Your task to perform on an android device: Go to display settings Image 0: 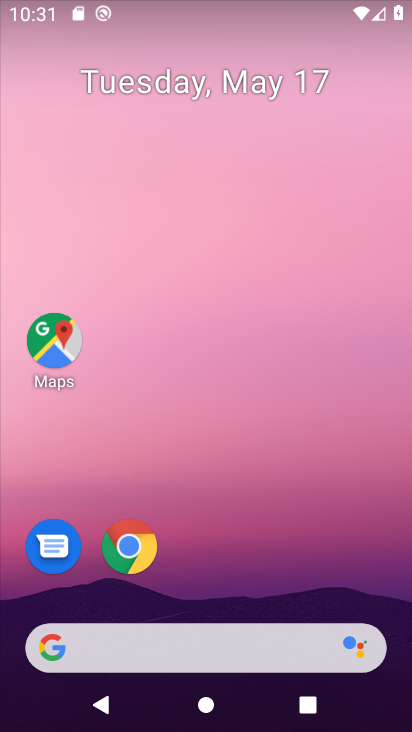
Step 0: drag from (267, 577) to (249, 133)
Your task to perform on an android device: Go to display settings Image 1: 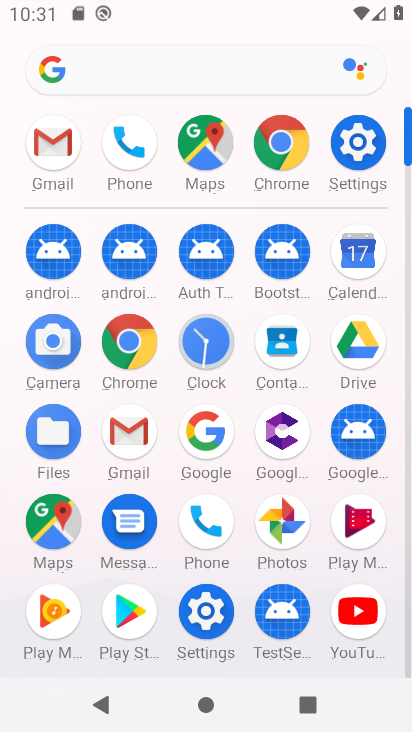
Step 1: click (351, 137)
Your task to perform on an android device: Go to display settings Image 2: 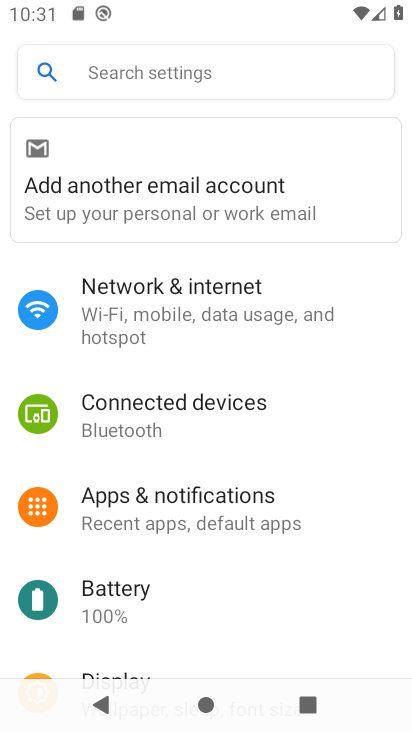
Step 2: drag from (172, 617) to (202, 392)
Your task to perform on an android device: Go to display settings Image 3: 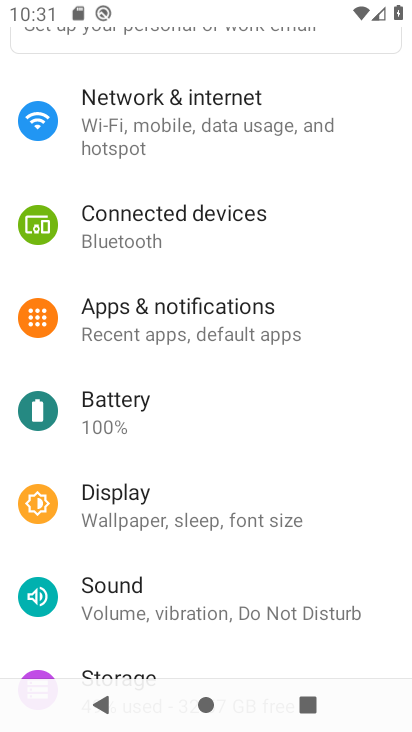
Step 3: click (187, 503)
Your task to perform on an android device: Go to display settings Image 4: 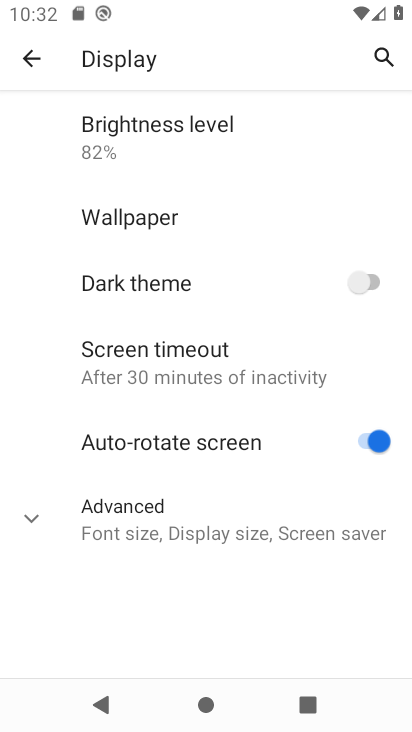
Step 4: task complete